Your task to perform on an android device: change the upload size in google photos Image 0: 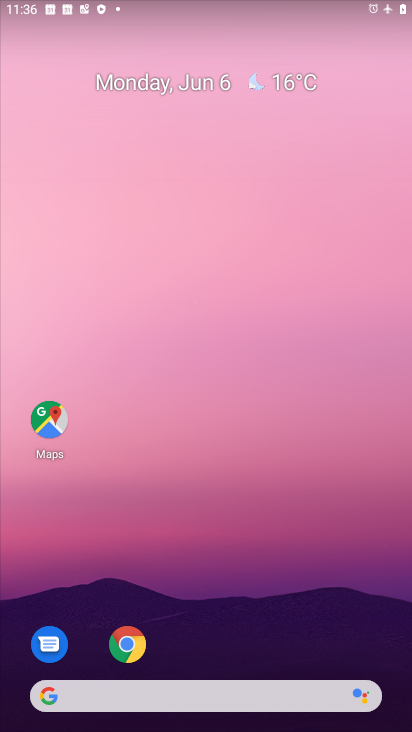
Step 0: drag from (259, 591) to (348, 42)
Your task to perform on an android device: change the upload size in google photos Image 1: 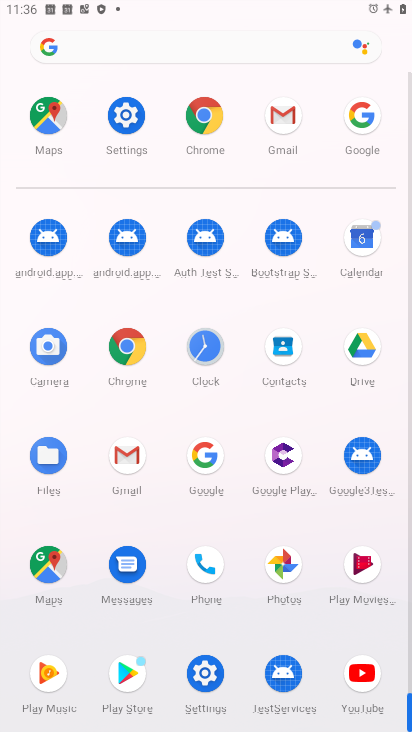
Step 1: click (272, 567)
Your task to perform on an android device: change the upload size in google photos Image 2: 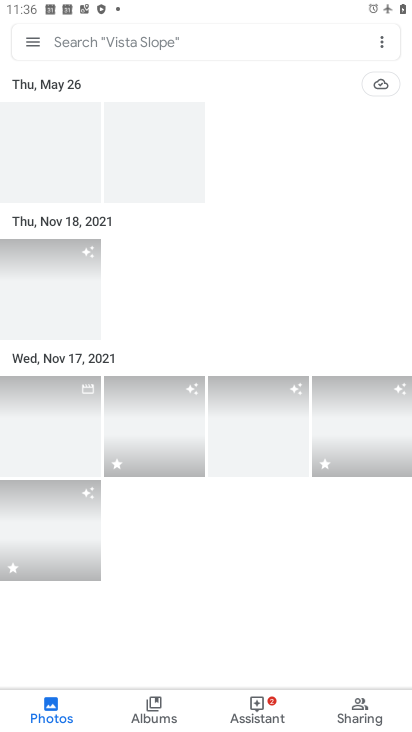
Step 2: click (385, 43)
Your task to perform on an android device: change the upload size in google photos Image 3: 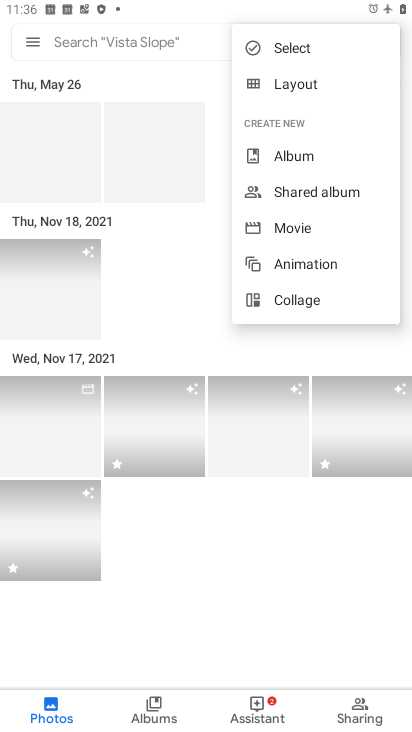
Step 3: click (44, 39)
Your task to perform on an android device: change the upload size in google photos Image 4: 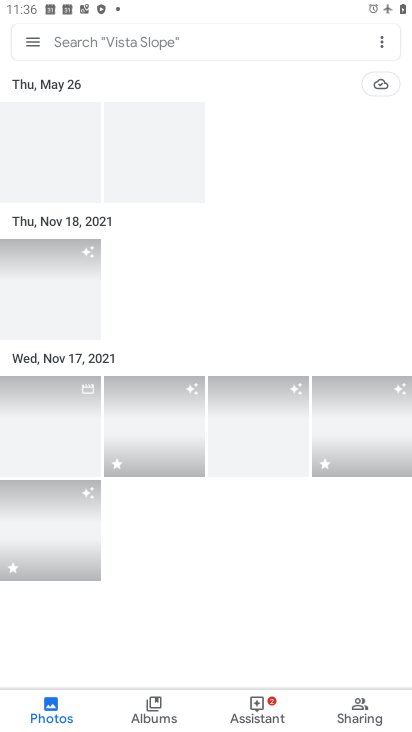
Step 4: click (30, 44)
Your task to perform on an android device: change the upload size in google photos Image 5: 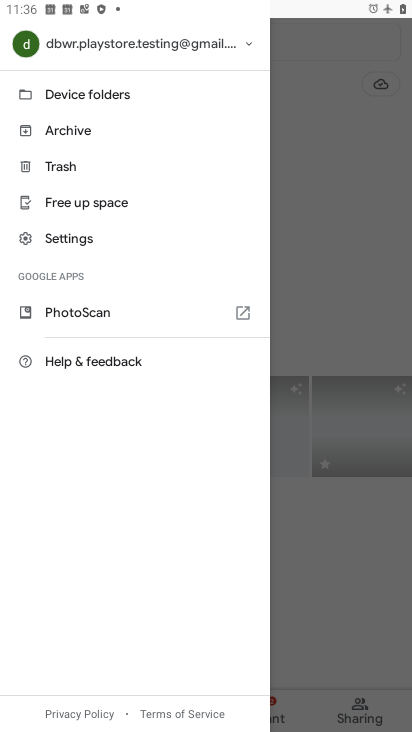
Step 5: click (128, 249)
Your task to perform on an android device: change the upload size in google photos Image 6: 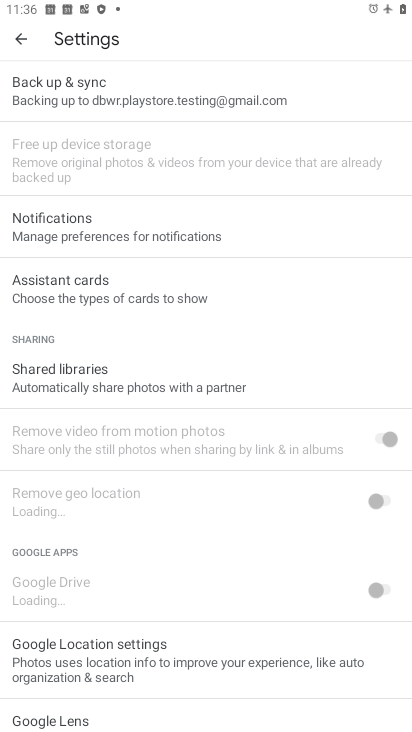
Step 6: click (215, 92)
Your task to perform on an android device: change the upload size in google photos Image 7: 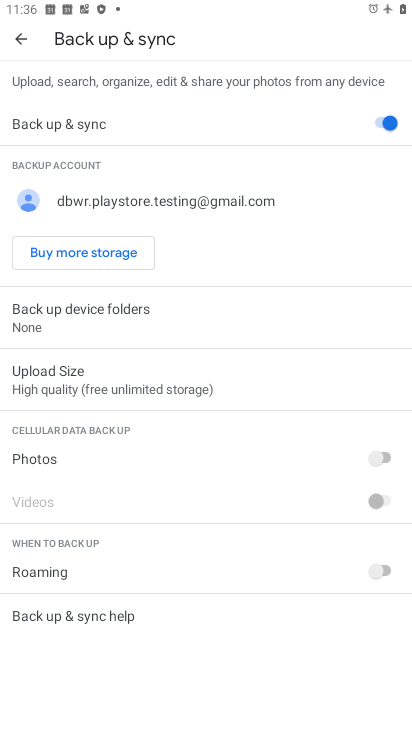
Step 7: click (162, 372)
Your task to perform on an android device: change the upload size in google photos Image 8: 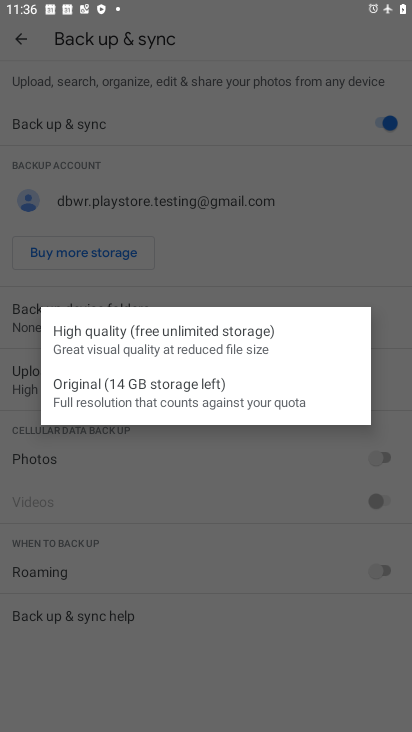
Step 8: click (166, 400)
Your task to perform on an android device: change the upload size in google photos Image 9: 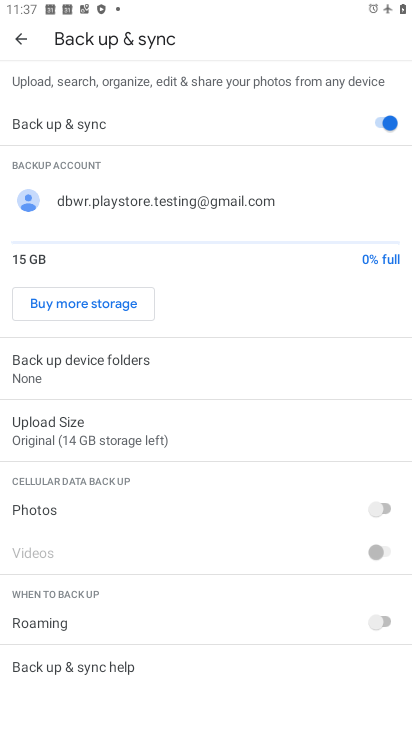
Step 9: task complete